Your task to perform on an android device: What's the weather going to be tomorrow? Image 0: 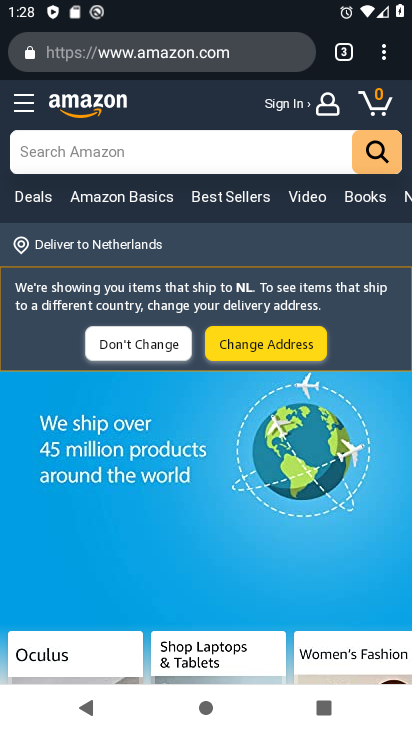
Step 0: press home button
Your task to perform on an android device: What's the weather going to be tomorrow? Image 1: 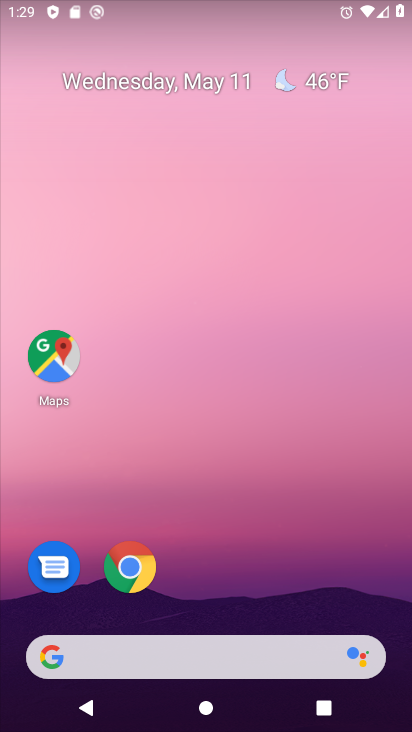
Step 1: drag from (225, 623) to (257, 37)
Your task to perform on an android device: What's the weather going to be tomorrow? Image 2: 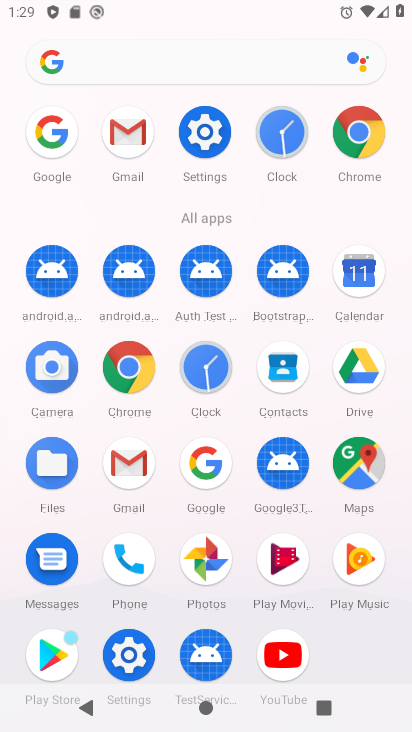
Step 2: click (200, 461)
Your task to perform on an android device: What's the weather going to be tomorrow? Image 3: 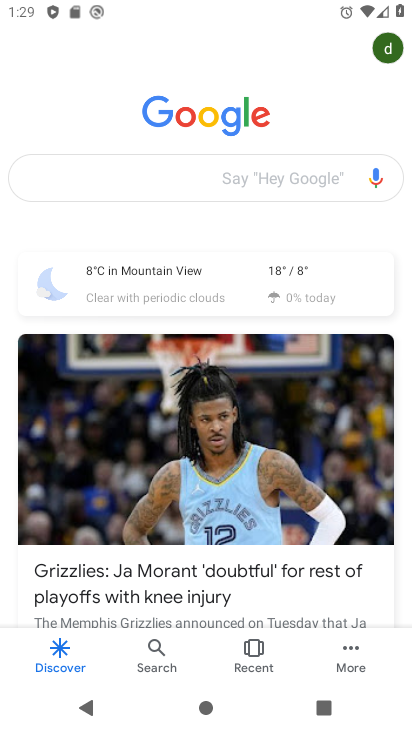
Step 3: click (290, 288)
Your task to perform on an android device: What's the weather going to be tomorrow? Image 4: 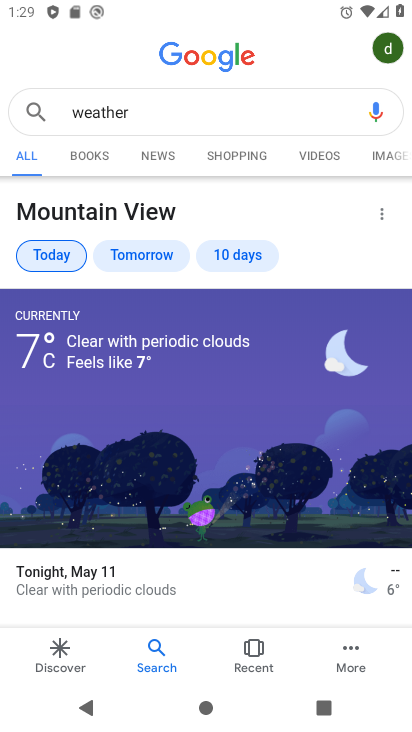
Step 4: click (162, 257)
Your task to perform on an android device: What's the weather going to be tomorrow? Image 5: 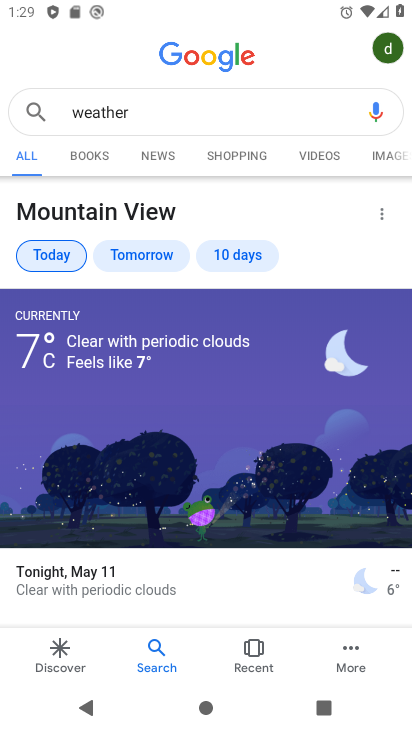
Step 5: click (161, 256)
Your task to perform on an android device: What's the weather going to be tomorrow? Image 6: 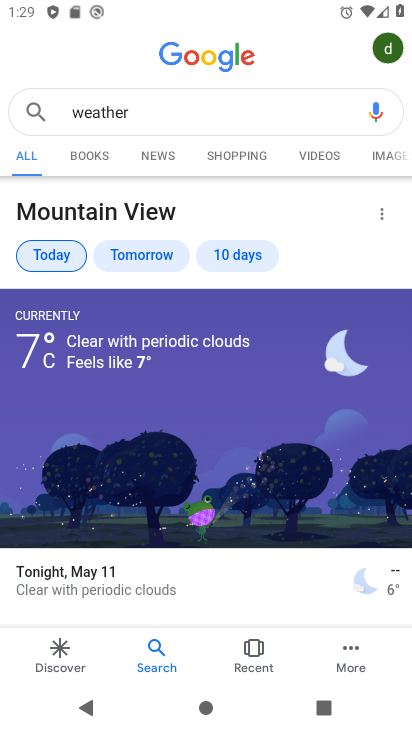
Step 6: task complete